Your task to perform on an android device: Show me popular games on the Play Store Image 0: 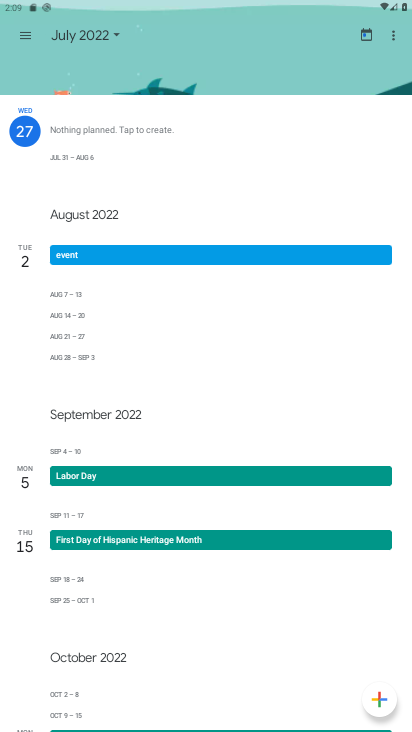
Step 0: press home button
Your task to perform on an android device: Show me popular games on the Play Store Image 1: 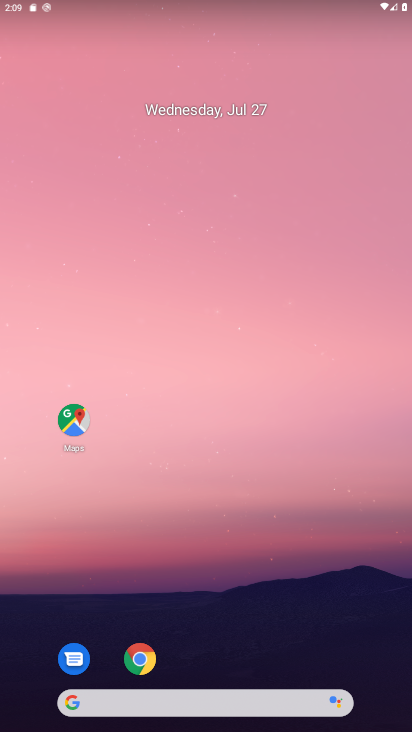
Step 1: drag from (253, 627) to (254, 36)
Your task to perform on an android device: Show me popular games on the Play Store Image 2: 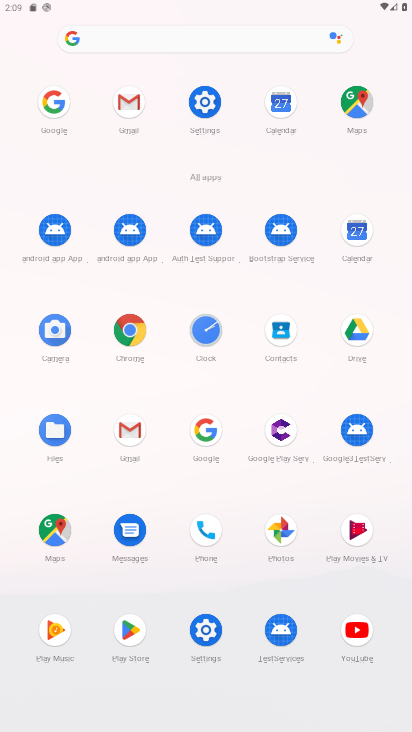
Step 2: click (127, 641)
Your task to perform on an android device: Show me popular games on the Play Store Image 3: 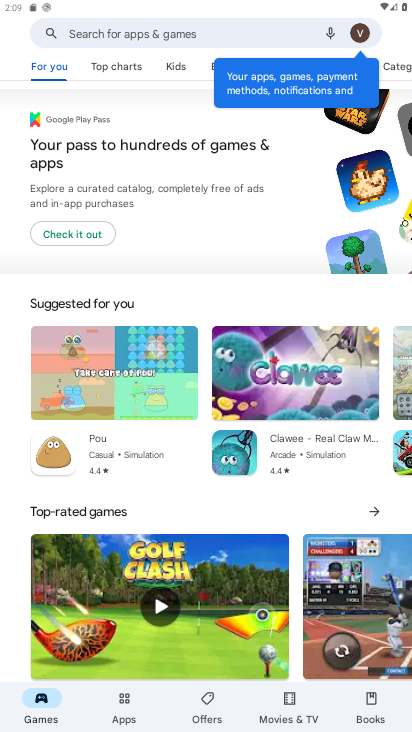
Step 3: click (132, 35)
Your task to perform on an android device: Show me popular games on the Play Store Image 4: 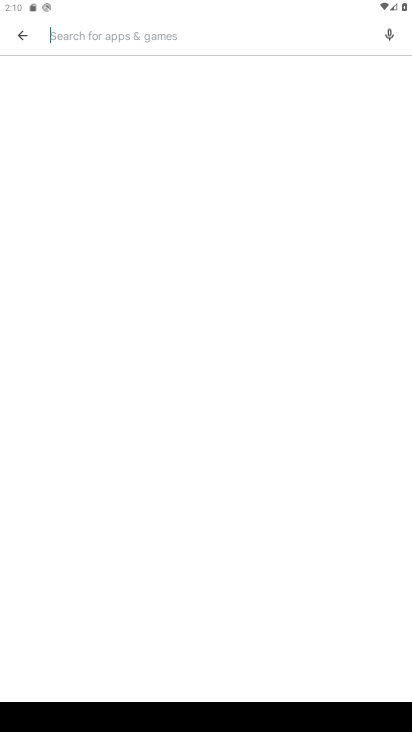
Step 4: type "popular games"
Your task to perform on an android device: Show me popular games on the Play Store Image 5: 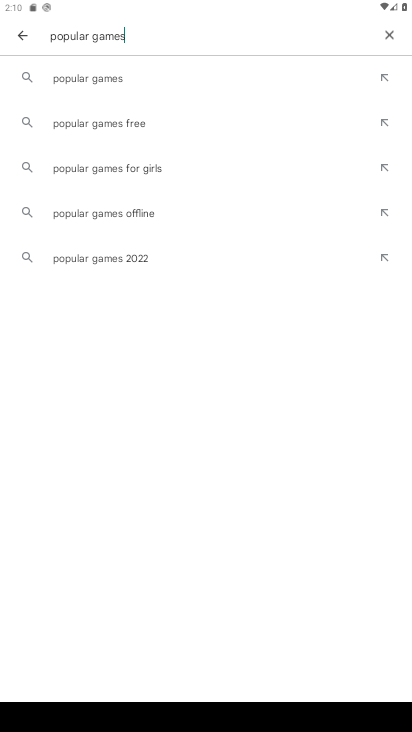
Step 5: click (60, 76)
Your task to perform on an android device: Show me popular games on the Play Store Image 6: 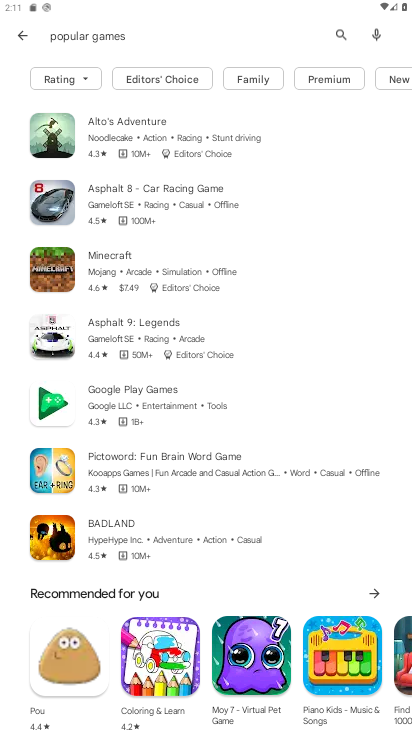
Step 6: task complete